Your task to perform on an android device: Clear the cart on walmart.com. Add dell xps to the cart on walmart.com Image 0: 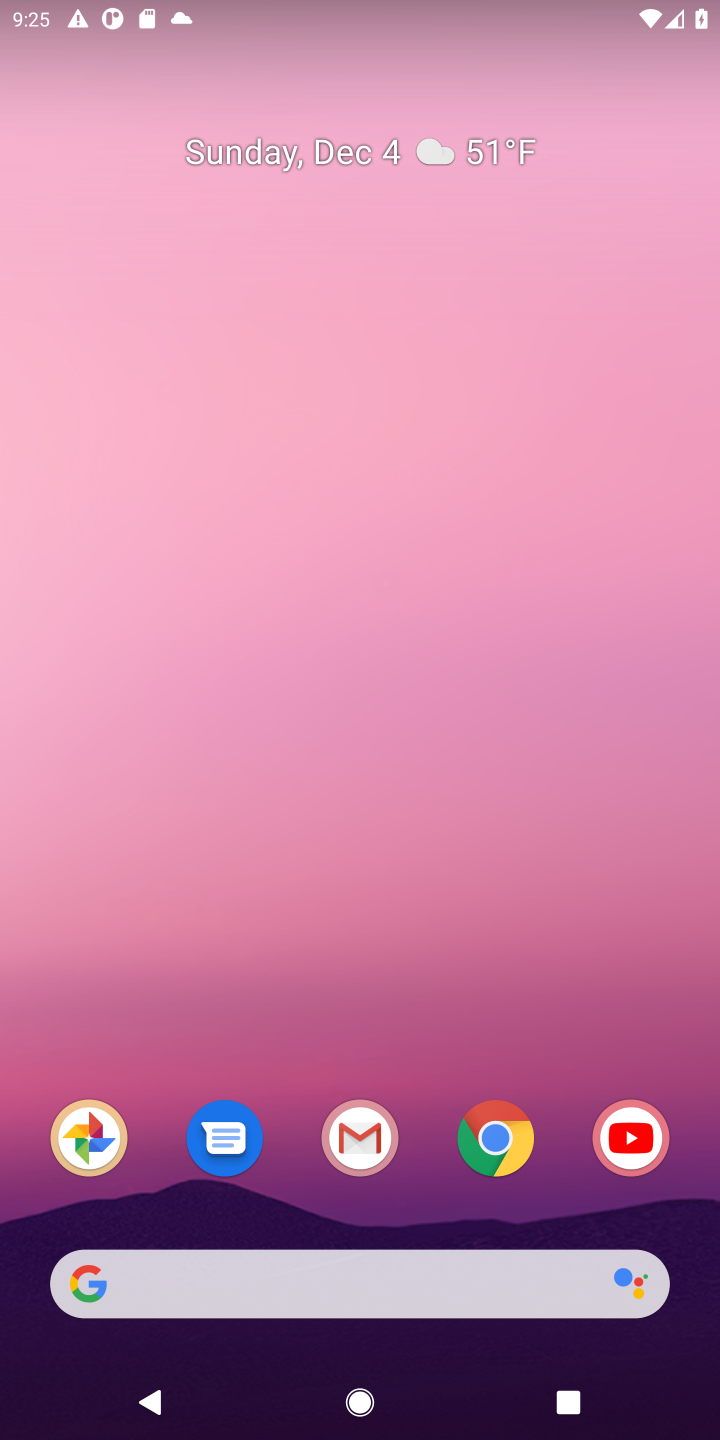
Step 0: click (487, 1152)
Your task to perform on an android device: Clear the cart on walmart.com. Add dell xps to the cart on walmart.com Image 1: 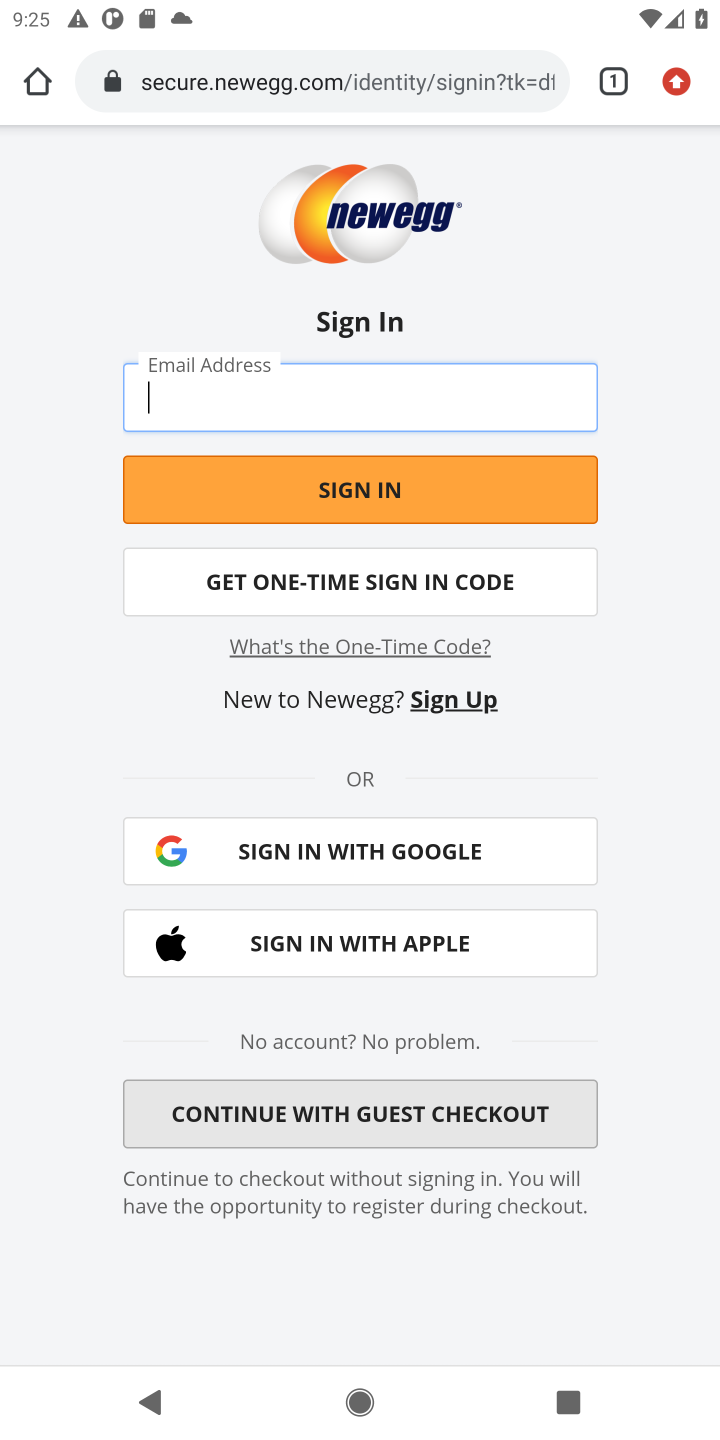
Step 1: click (403, 78)
Your task to perform on an android device: Clear the cart on walmart.com. Add dell xps to the cart on walmart.com Image 2: 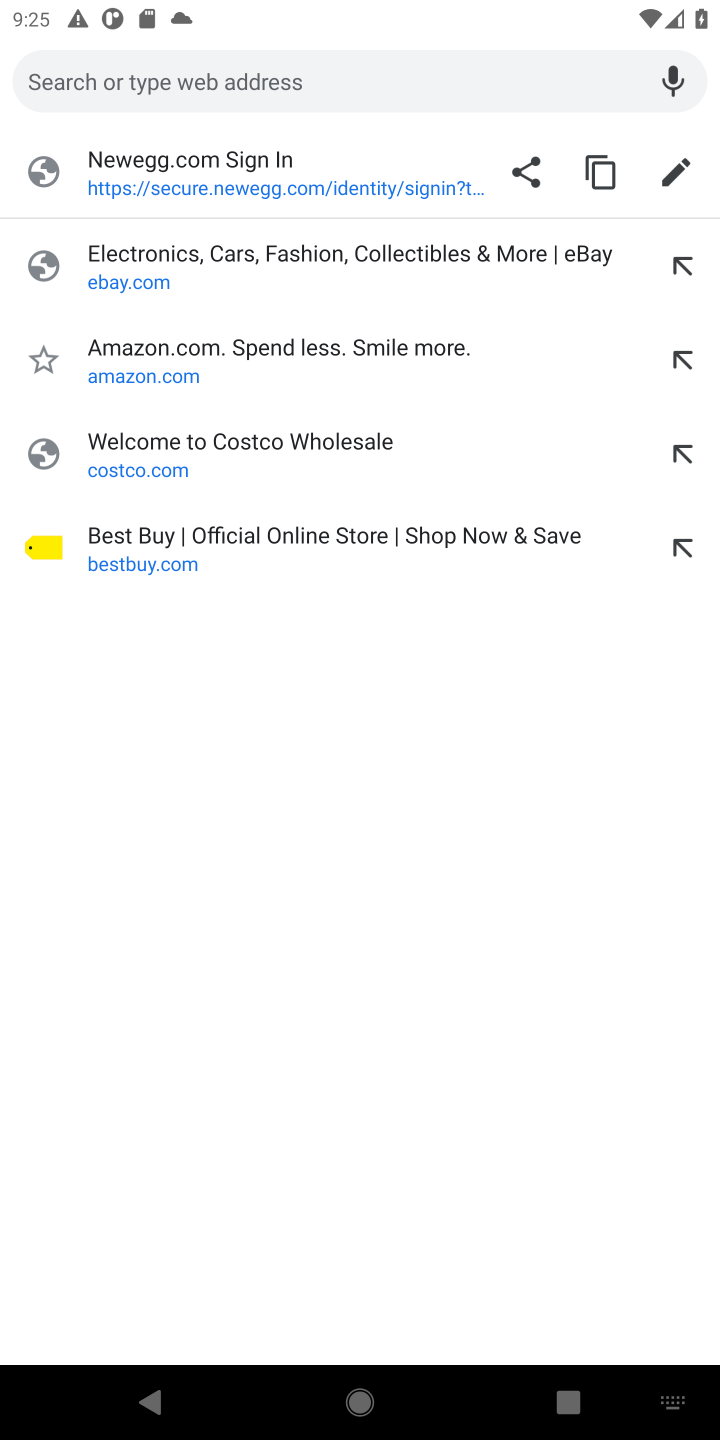
Step 2: type "walm"
Your task to perform on an android device: Clear the cart on walmart.com. Add dell xps to the cart on walmart.com Image 3: 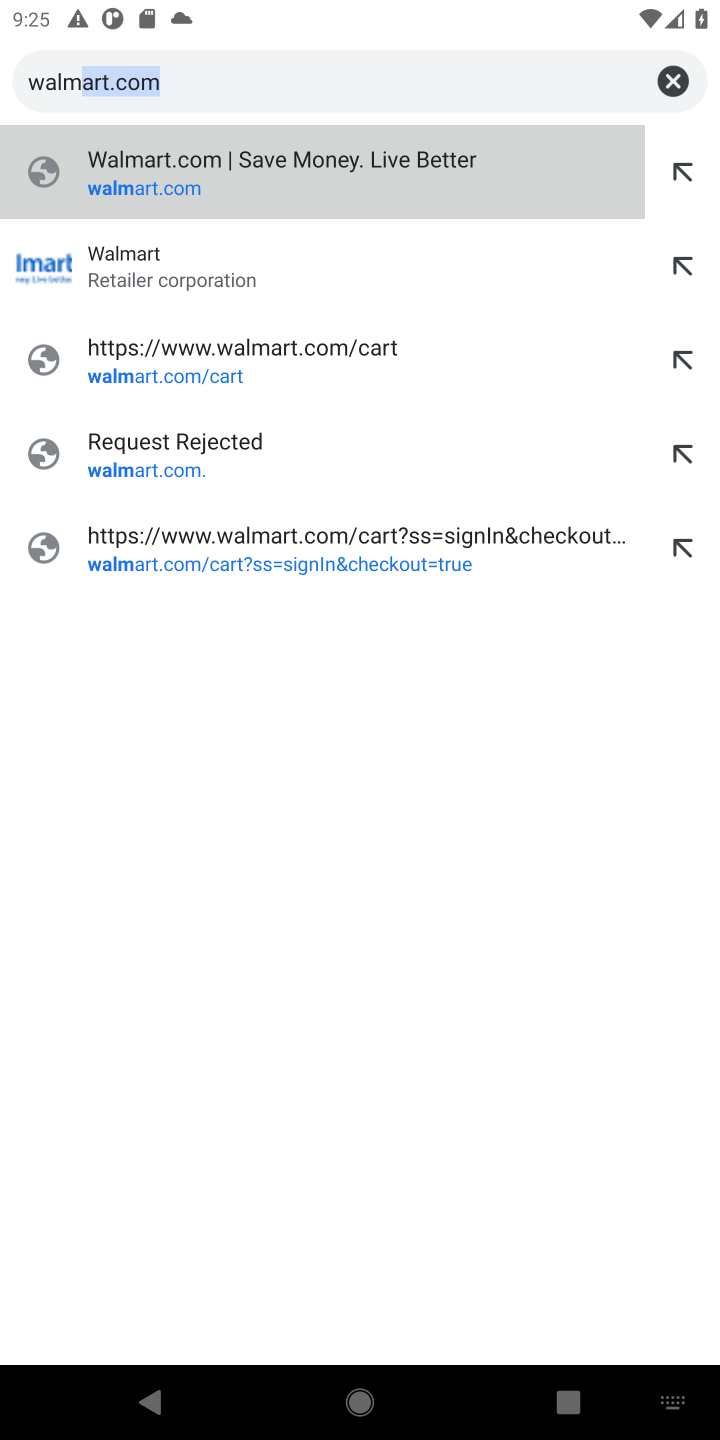
Step 3: click (496, 74)
Your task to perform on an android device: Clear the cart on walmart.com. Add dell xps to the cart on walmart.com Image 4: 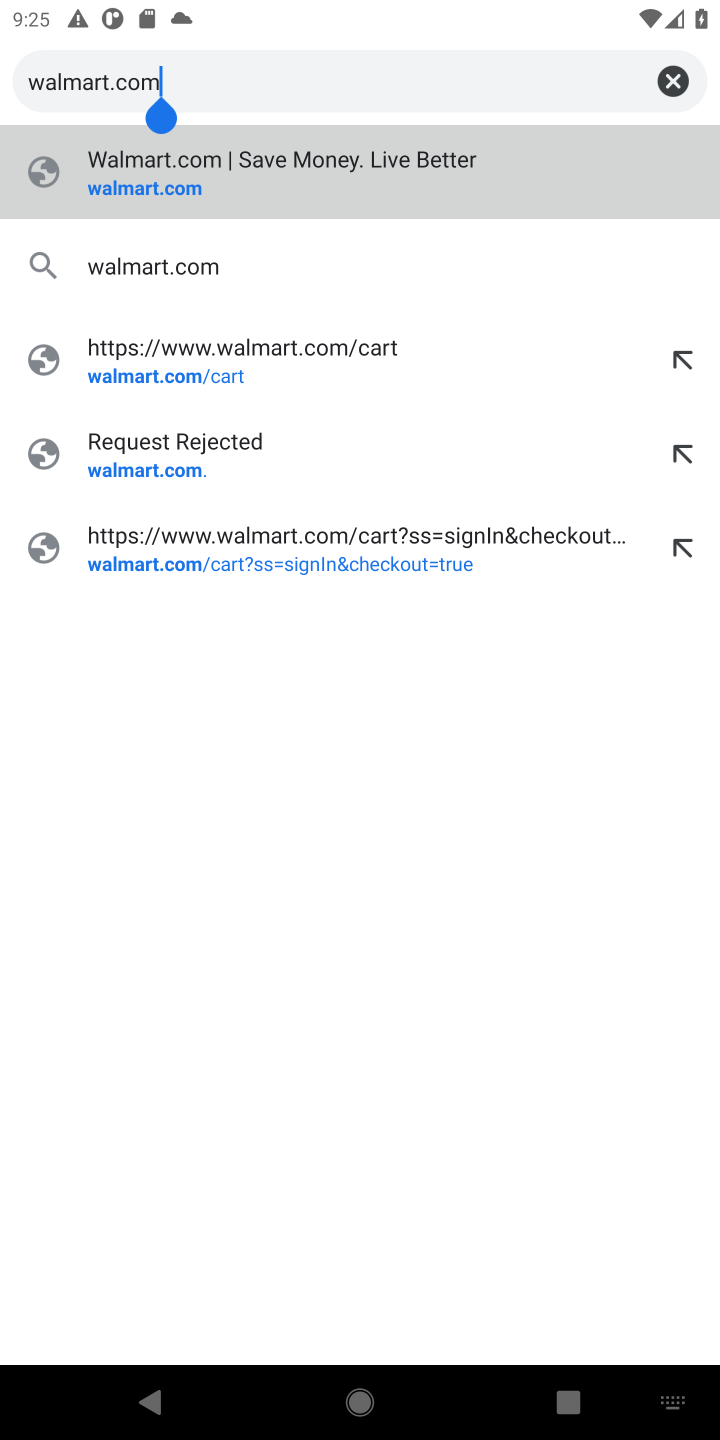
Step 4: click (193, 262)
Your task to perform on an android device: Clear the cart on walmart.com. Add dell xps to the cart on walmart.com Image 5: 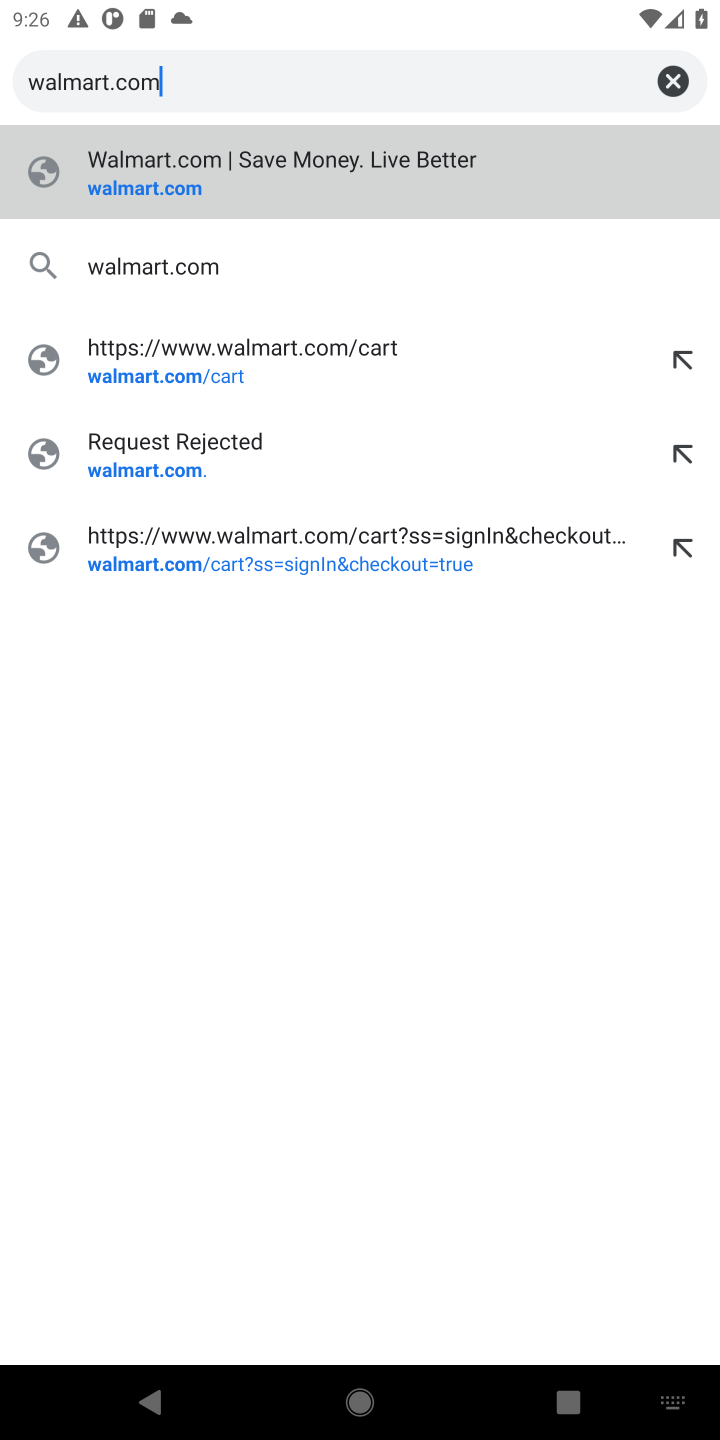
Step 5: click (187, 260)
Your task to perform on an android device: Clear the cart on walmart.com. Add dell xps to the cart on walmart.com Image 6: 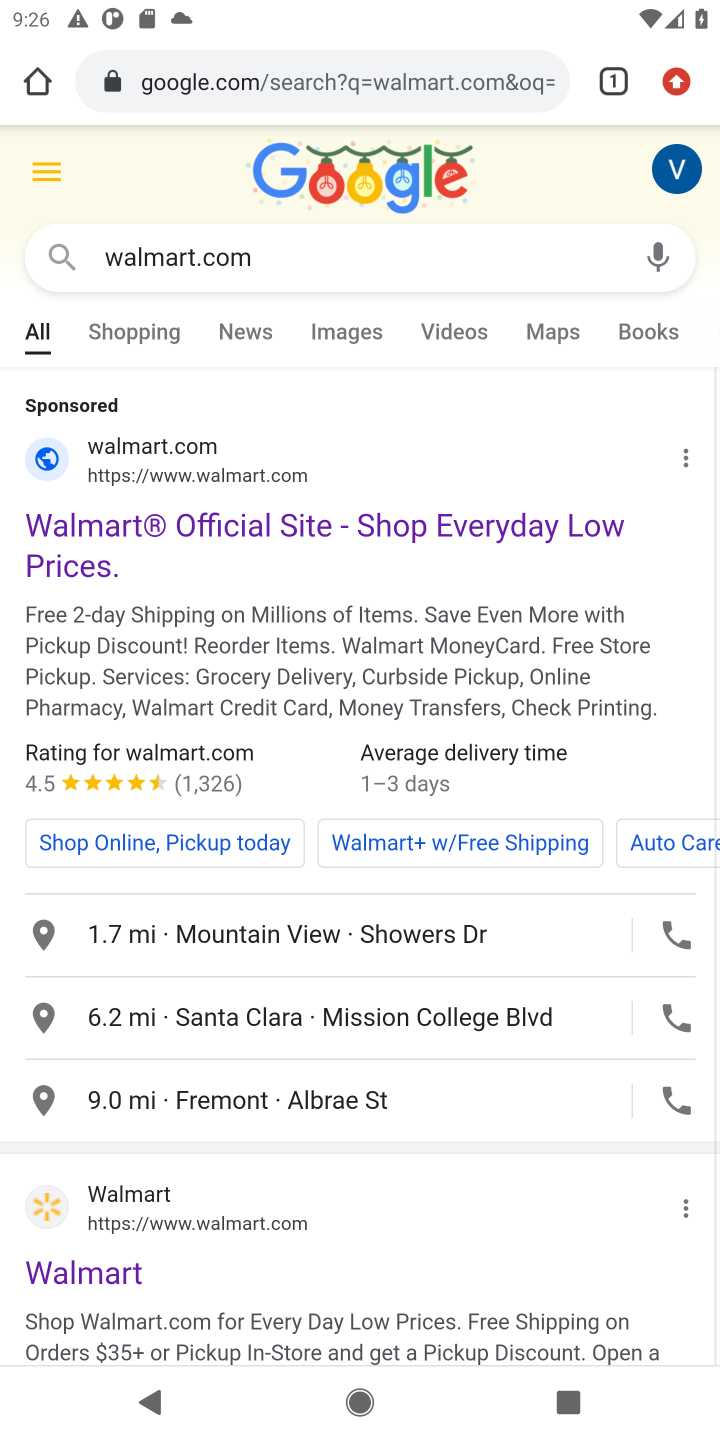
Step 6: click (261, 482)
Your task to perform on an android device: Clear the cart on walmart.com. Add dell xps to the cart on walmart.com Image 7: 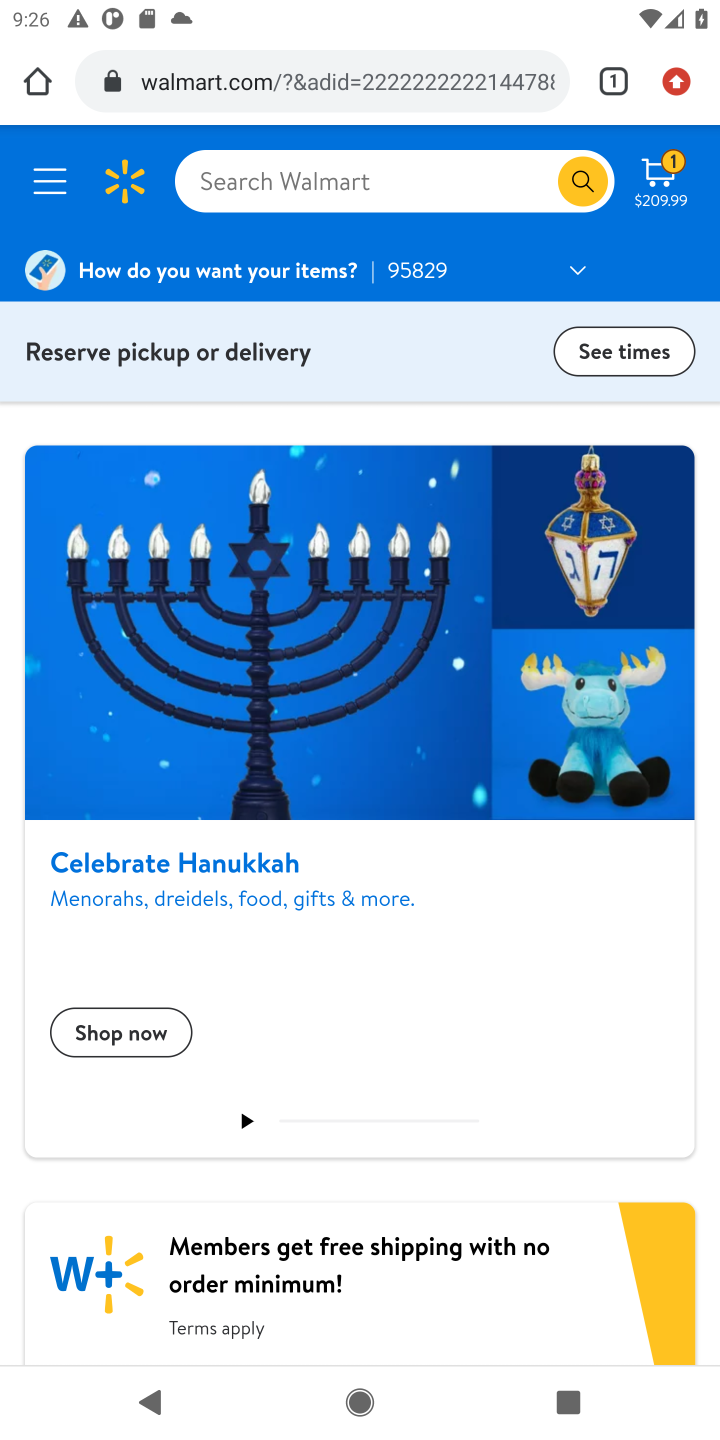
Step 7: click (662, 184)
Your task to perform on an android device: Clear the cart on walmart.com. Add dell xps to the cart on walmart.com Image 8: 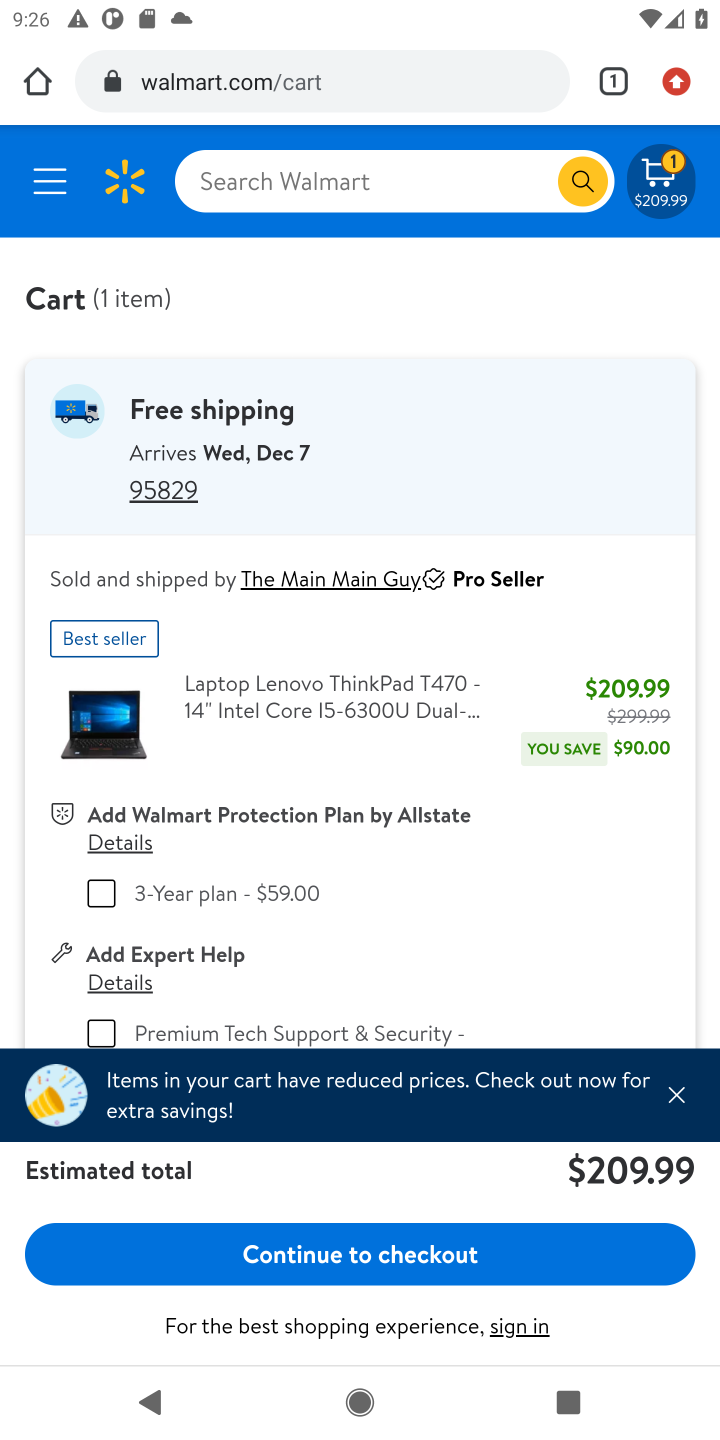
Step 8: drag from (461, 913) to (496, 584)
Your task to perform on an android device: Clear the cart on walmart.com. Add dell xps to the cart on walmart.com Image 9: 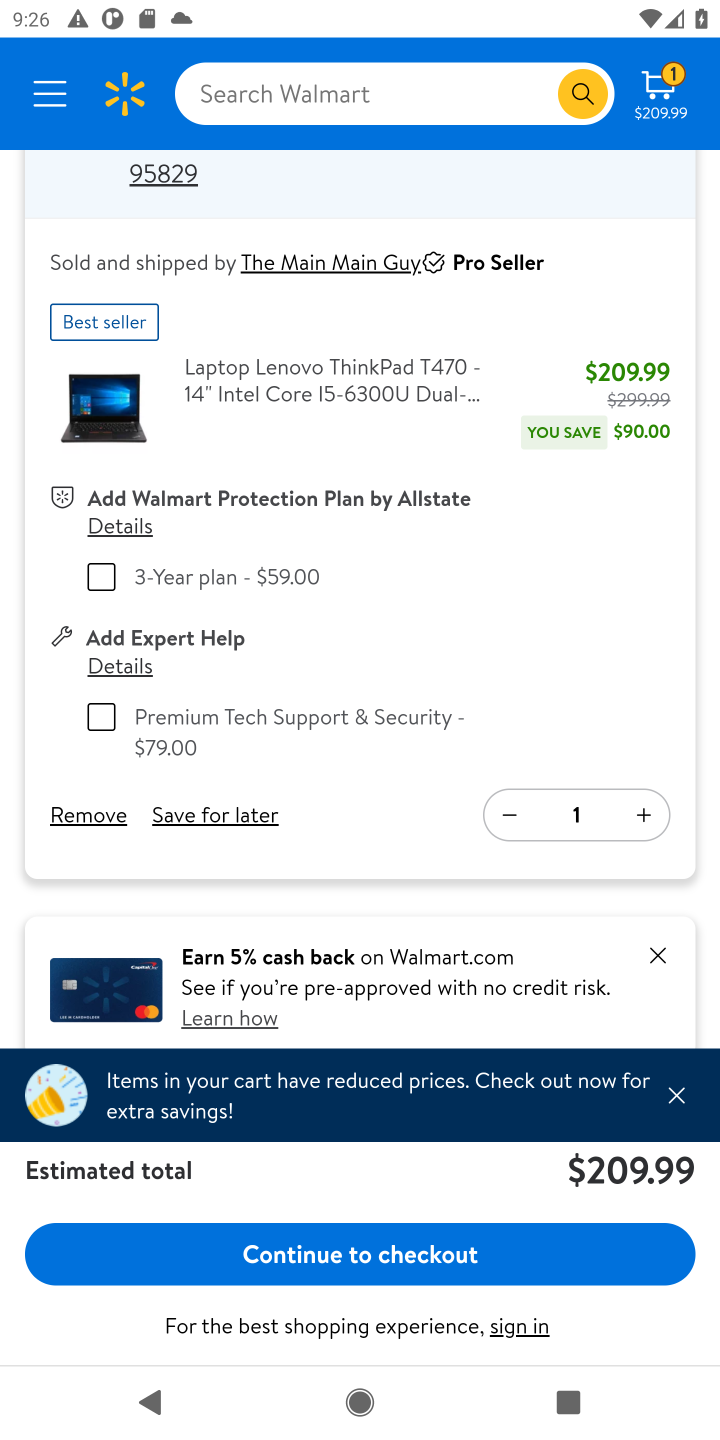
Step 9: click (93, 813)
Your task to perform on an android device: Clear the cart on walmart.com. Add dell xps to the cart on walmart.com Image 10: 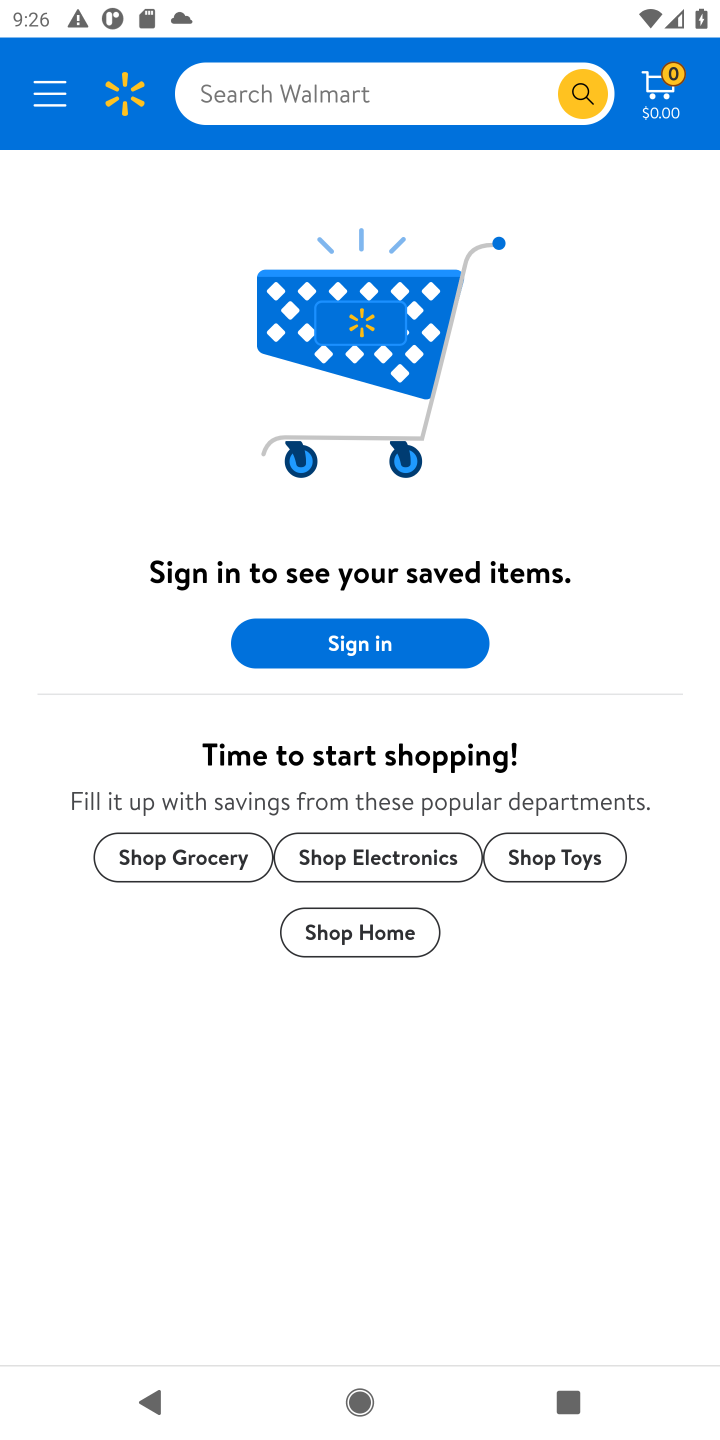
Step 10: click (422, 84)
Your task to perform on an android device: Clear the cart on walmart.com. Add dell xps to the cart on walmart.com Image 11: 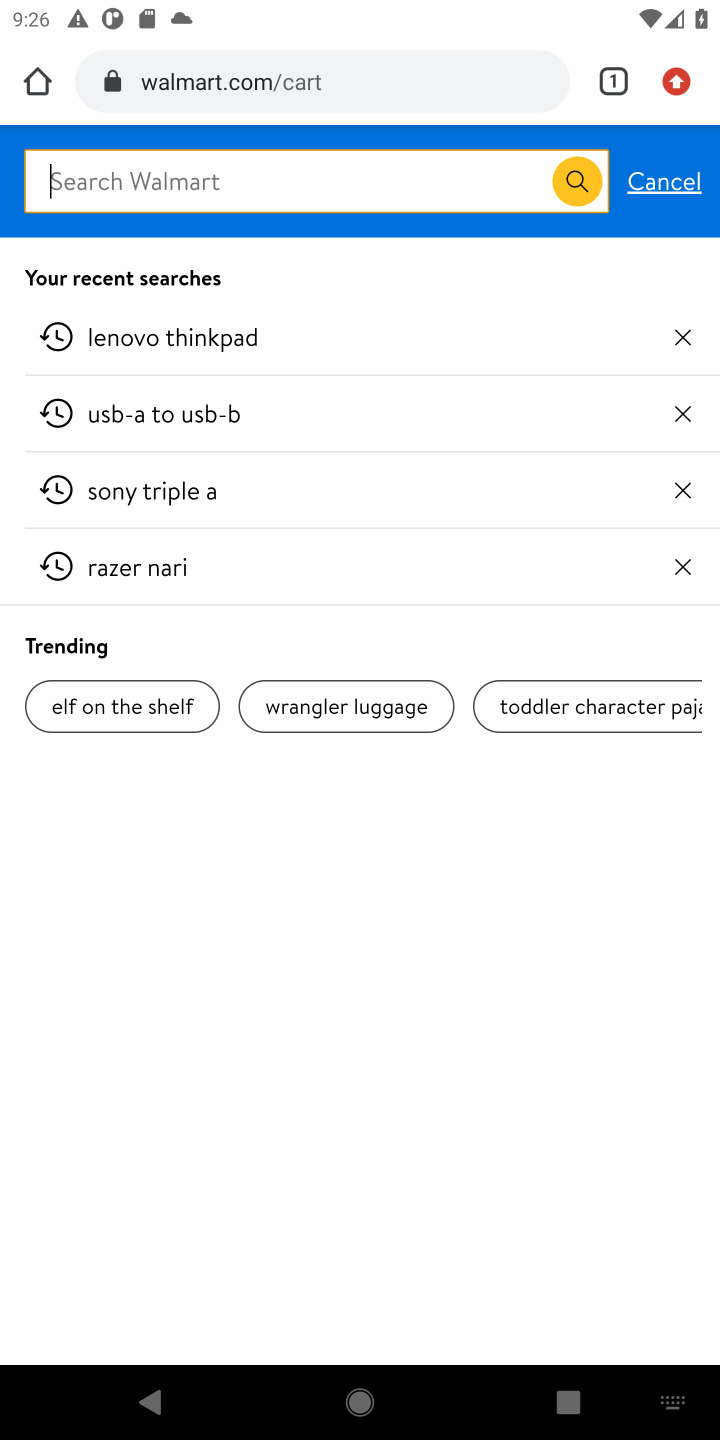
Step 11: type "dell xps"
Your task to perform on an android device: Clear the cart on walmart.com. Add dell xps to the cart on walmart.com Image 12: 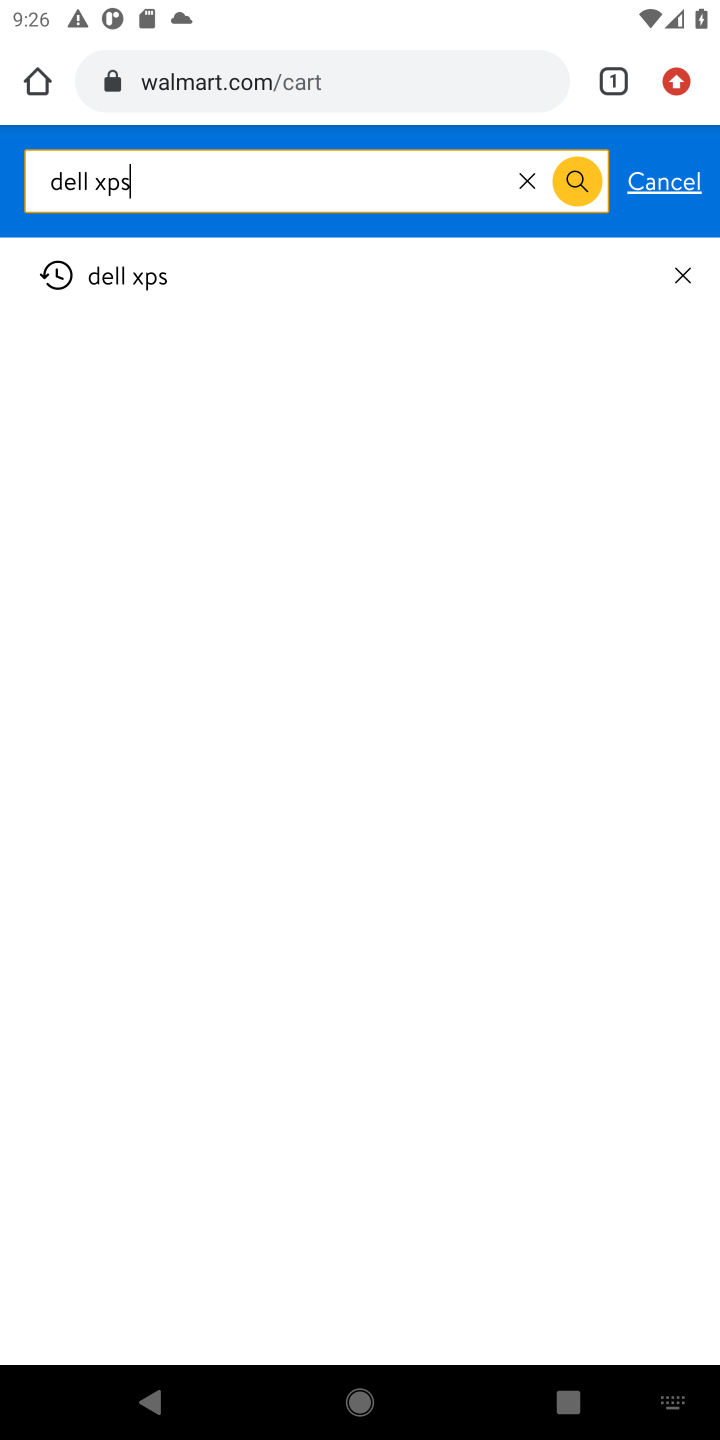
Step 12: press enter
Your task to perform on an android device: Clear the cart on walmart.com. Add dell xps to the cart on walmart.com Image 13: 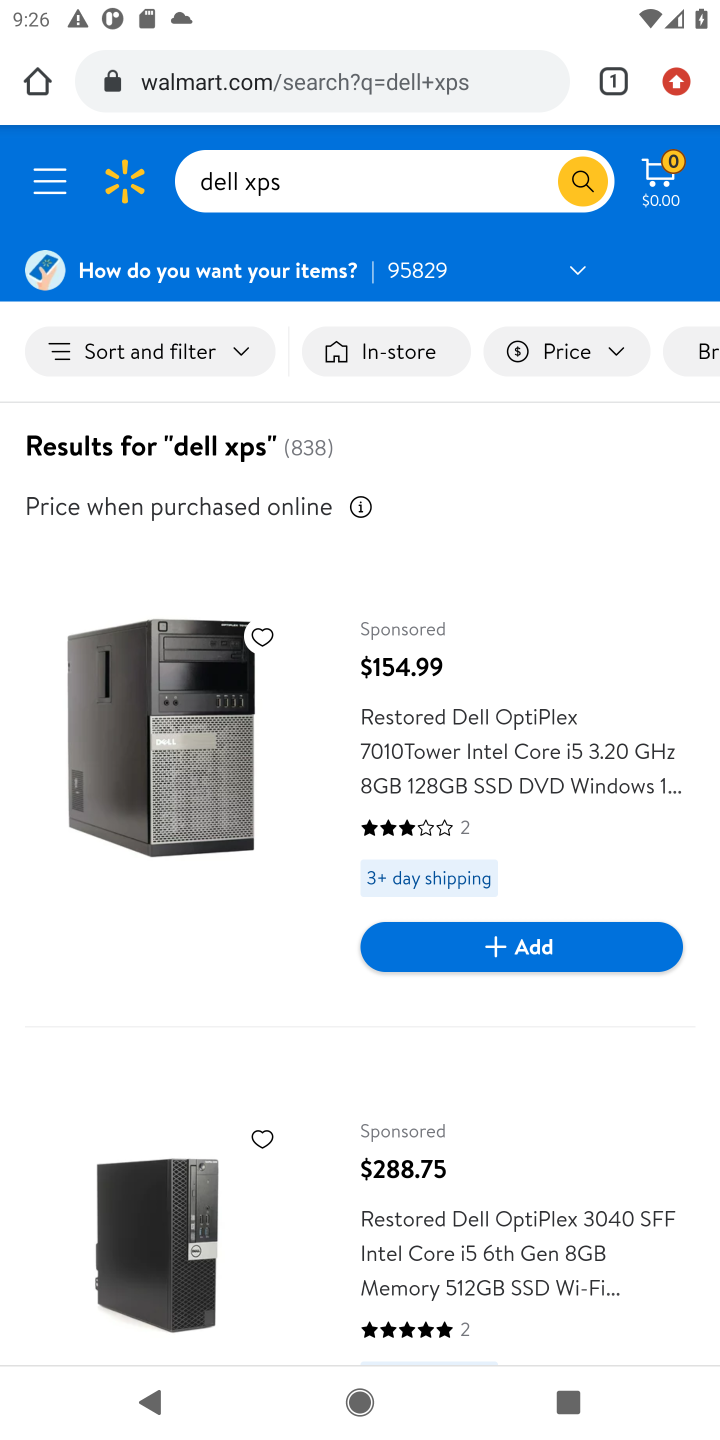
Step 13: drag from (585, 1046) to (608, 650)
Your task to perform on an android device: Clear the cart on walmart.com. Add dell xps to the cart on walmart.com Image 14: 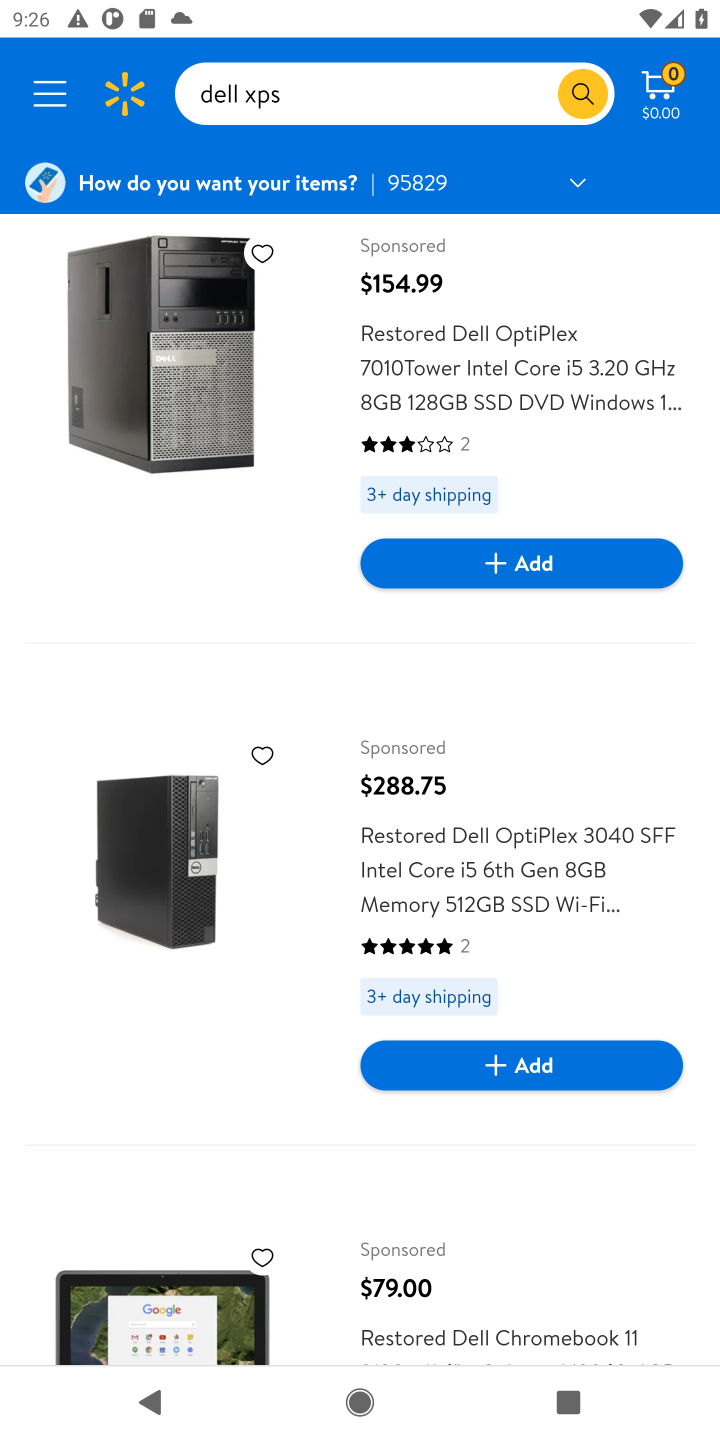
Step 14: drag from (608, 1265) to (605, 837)
Your task to perform on an android device: Clear the cart on walmart.com. Add dell xps to the cart on walmart.com Image 15: 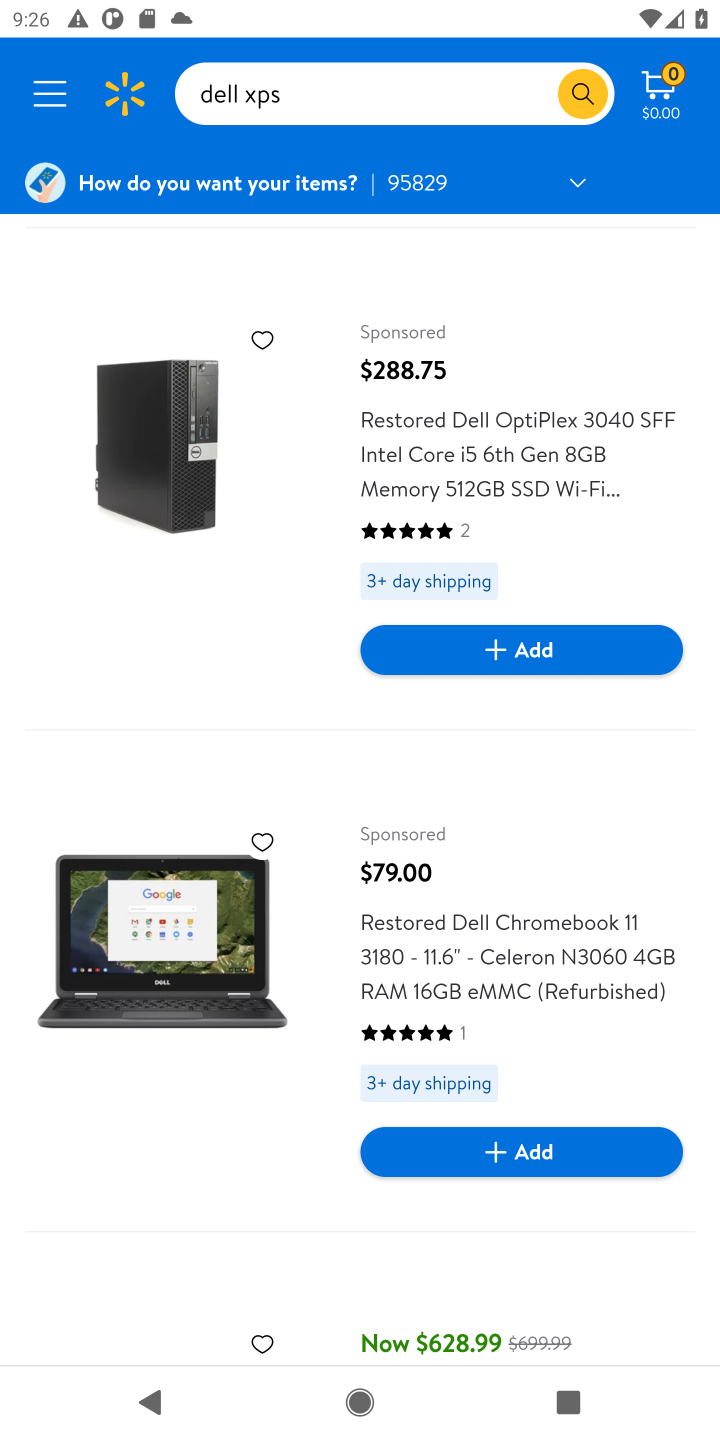
Step 15: drag from (506, 862) to (440, 418)
Your task to perform on an android device: Clear the cart on walmart.com. Add dell xps to the cart on walmart.com Image 16: 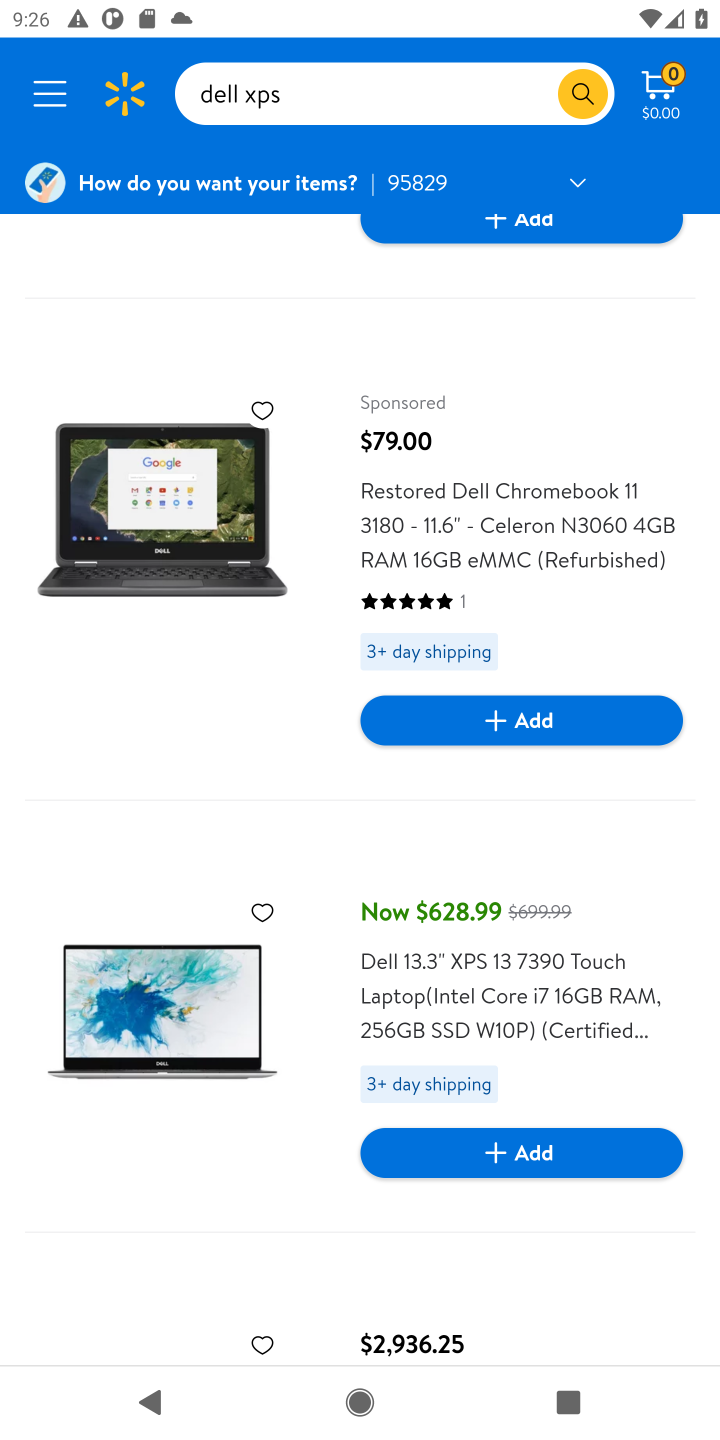
Step 16: drag from (586, 1282) to (18, 813)
Your task to perform on an android device: Clear the cart on walmart.com. Add dell xps to the cart on walmart.com Image 17: 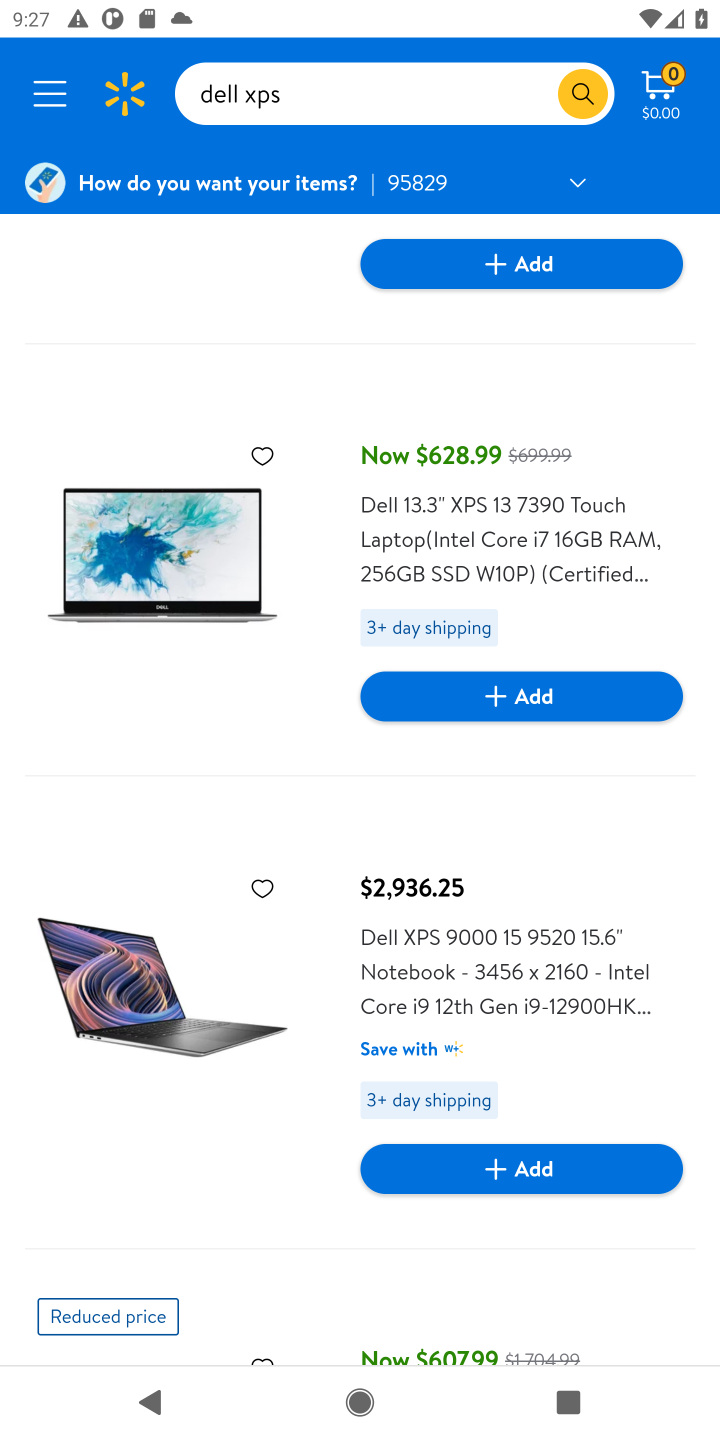
Step 17: click (142, 951)
Your task to perform on an android device: Clear the cart on walmart.com. Add dell xps to the cart on walmart.com Image 18: 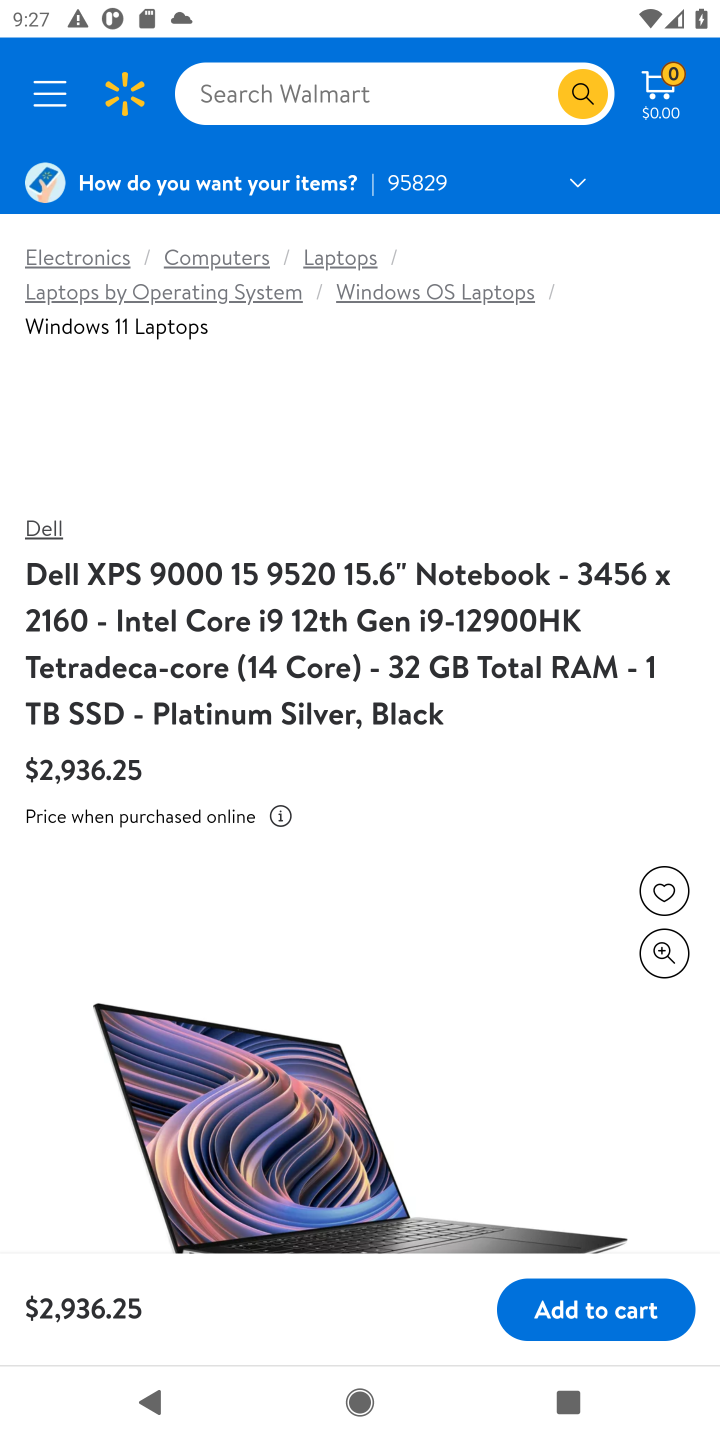
Step 18: click (587, 1309)
Your task to perform on an android device: Clear the cart on walmart.com. Add dell xps to the cart on walmart.com Image 19: 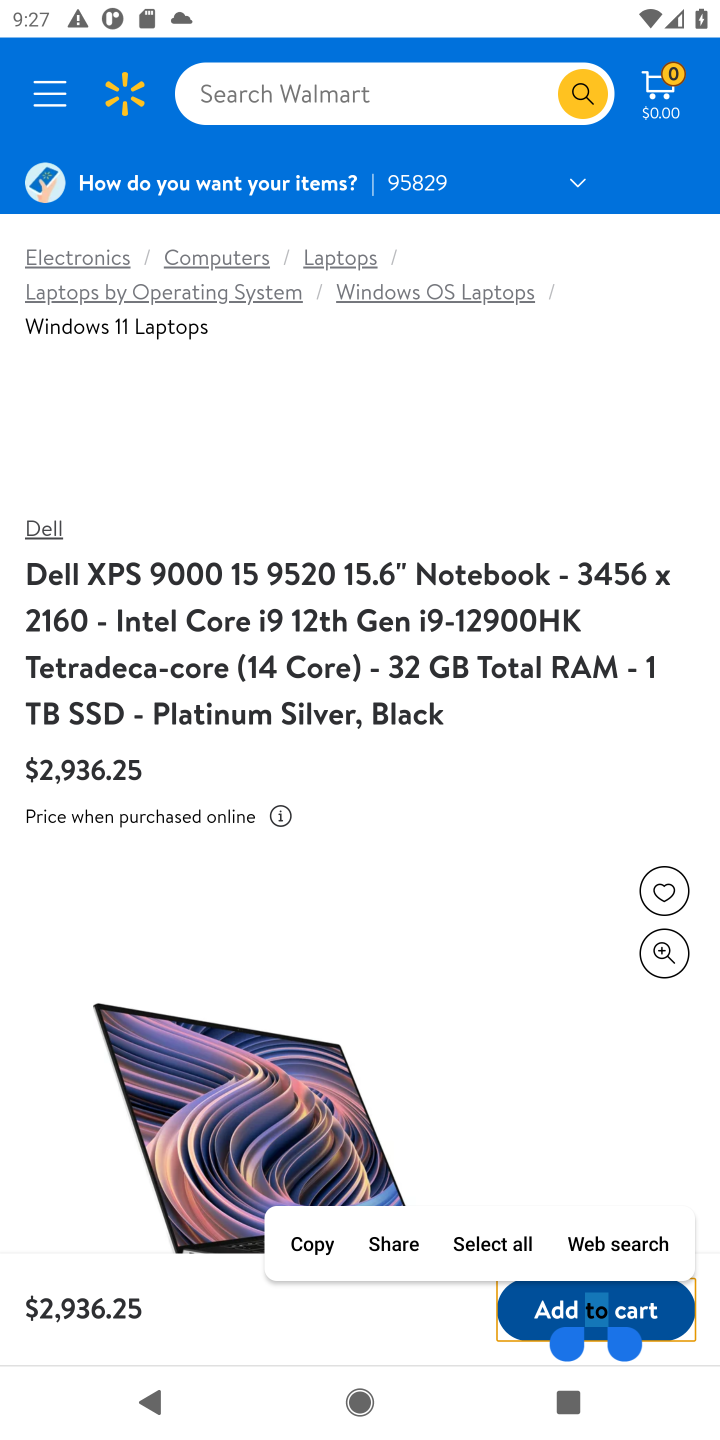
Step 19: click (463, 936)
Your task to perform on an android device: Clear the cart on walmart.com. Add dell xps to the cart on walmart.com Image 20: 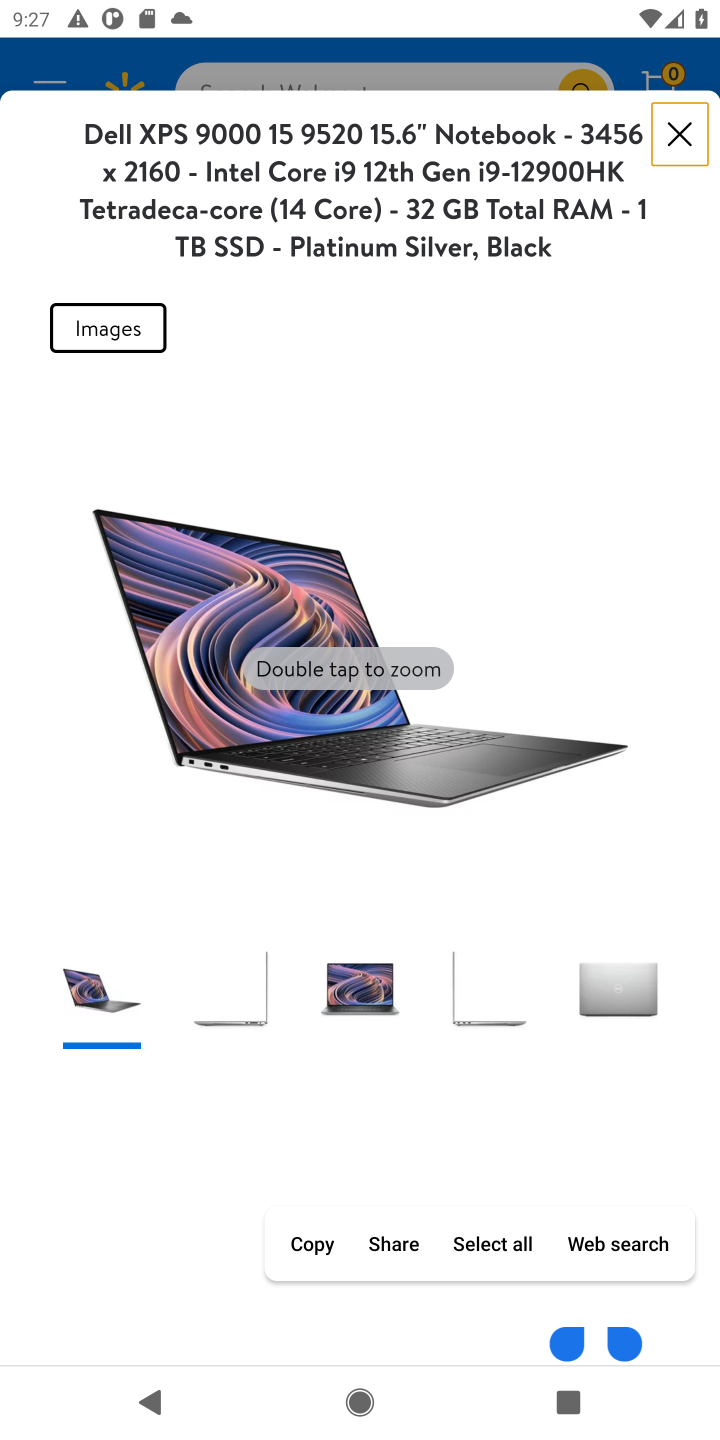
Step 20: click (470, 754)
Your task to perform on an android device: Clear the cart on walmart.com. Add dell xps to the cart on walmart.com Image 21: 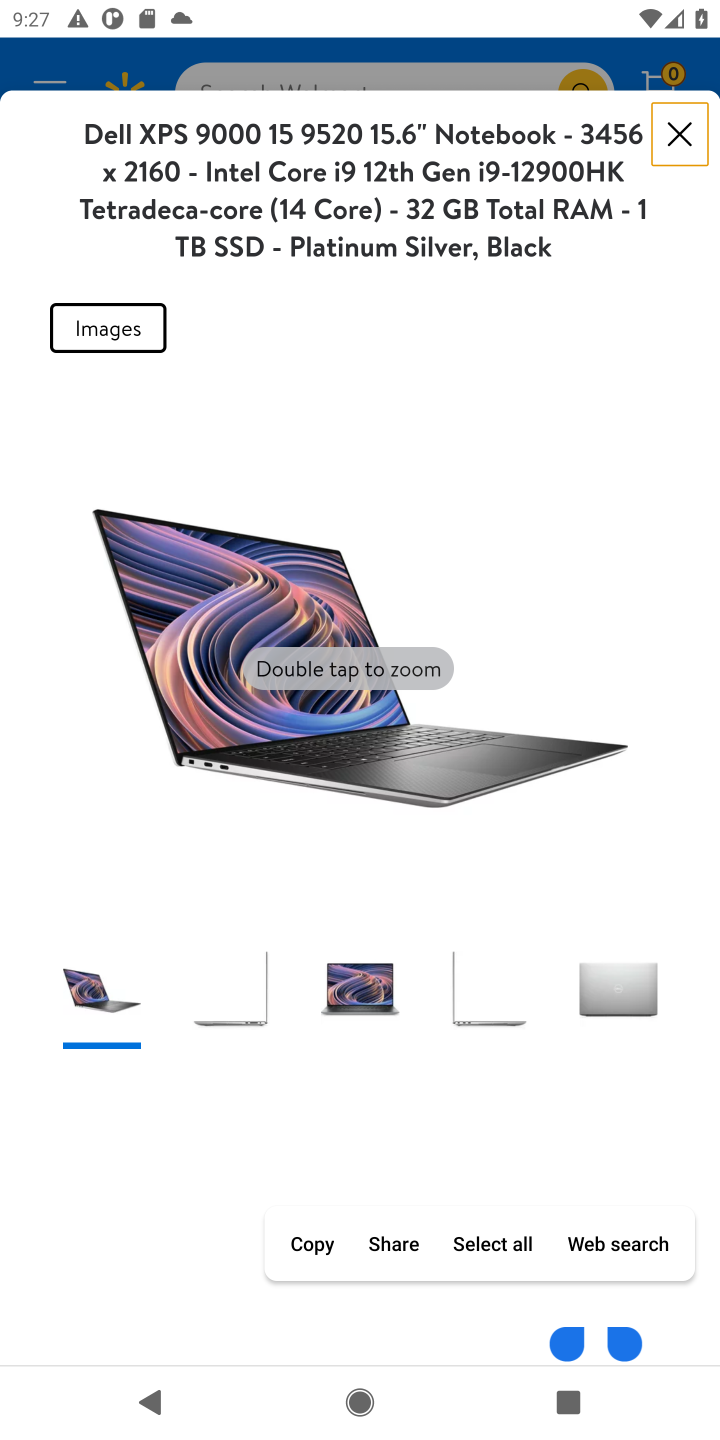
Step 21: click (677, 133)
Your task to perform on an android device: Clear the cart on walmart.com. Add dell xps to the cart on walmart.com Image 22: 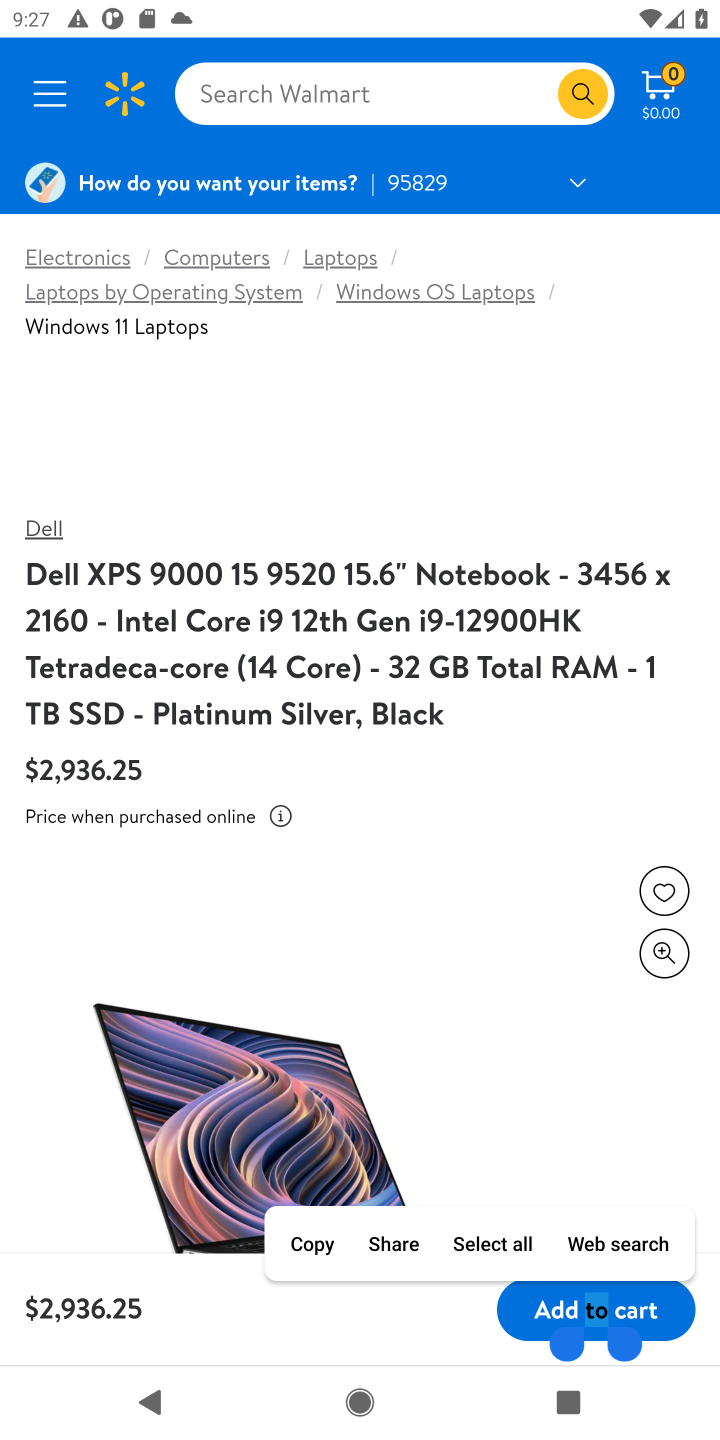
Step 22: click (488, 432)
Your task to perform on an android device: Clear the cart on walmart.com. Add dell xps to the cart on walmart.com Image 23: 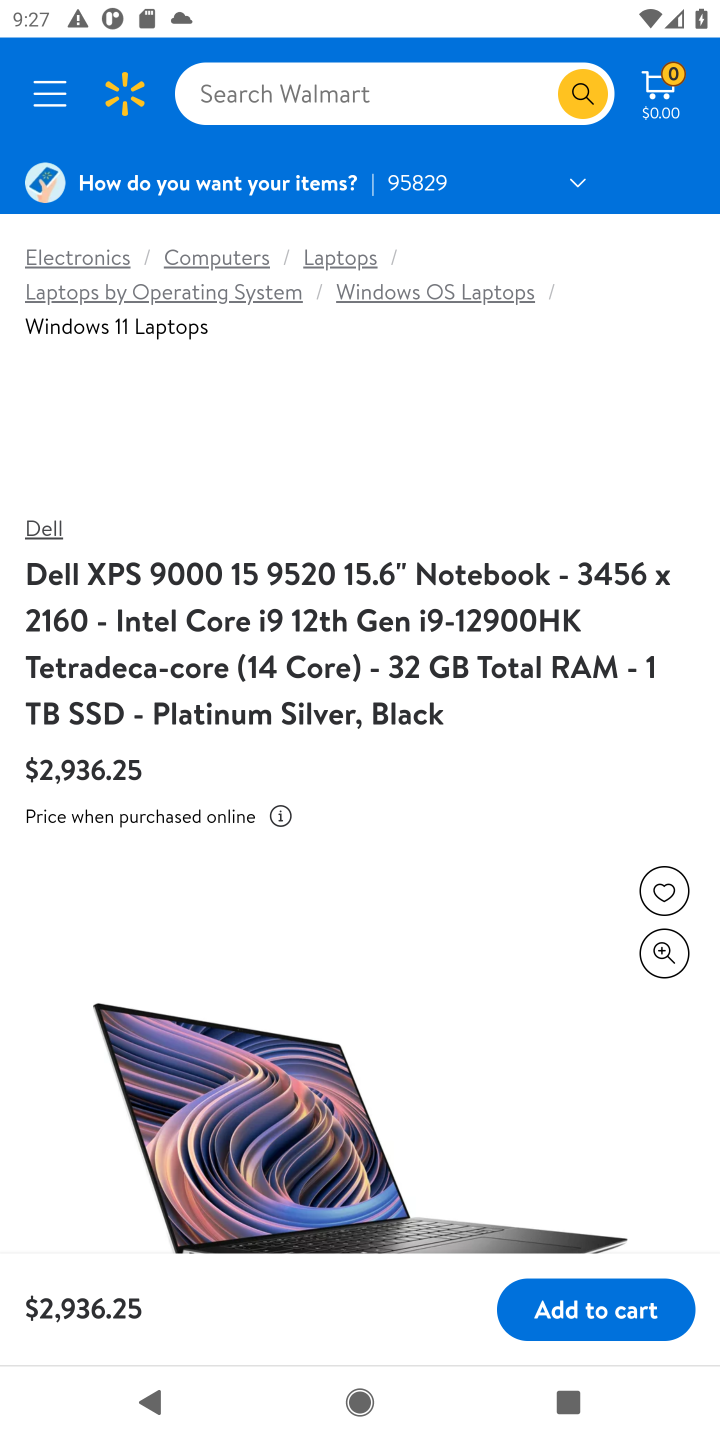
Step 23: click (601, 1326)
Your task to perform on an android device: Clear the cart on walmart.com. Add dell xps to the cart on walmart.com Image 24: 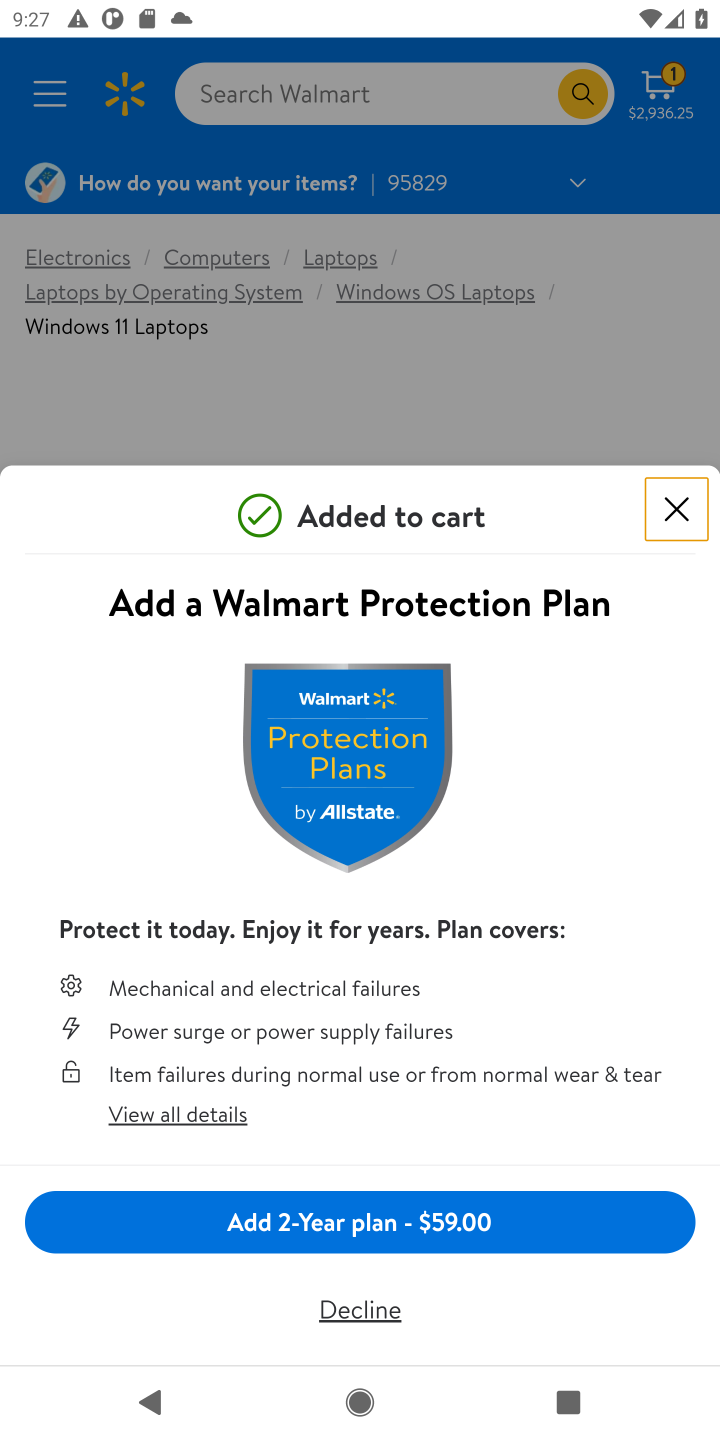
Step 24: click (698, 519)
Your task to perform on an android device: Clear the cart on walmart.com. Add dell xps to the cart on walmart.com Image 25: 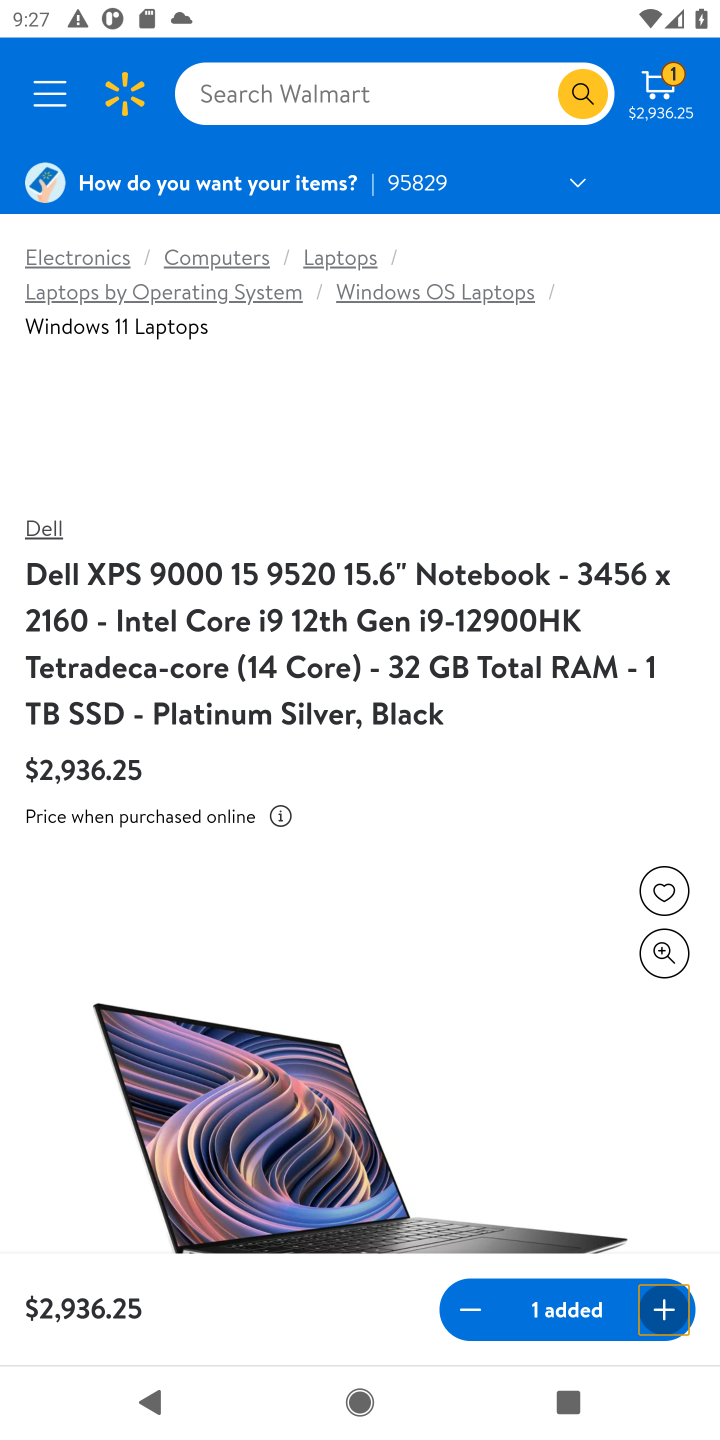
Step 25: task complete